Your task to perform on an android device: turn off smart reply in the gmail app Image 0: 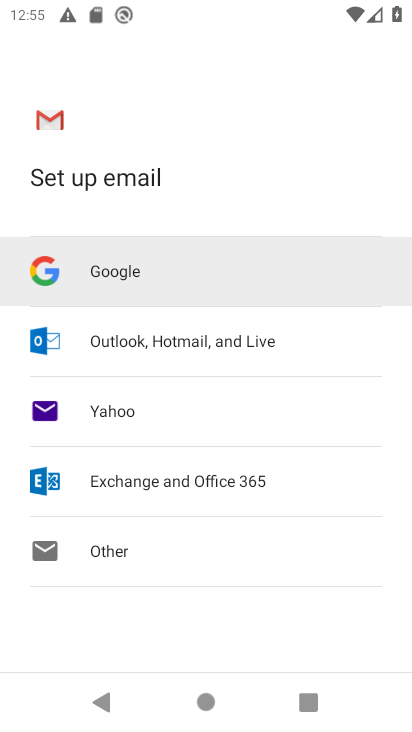
Step 0: press home button
Your task to perform on an android device: turn off smart reply in the gmail app Image 1: 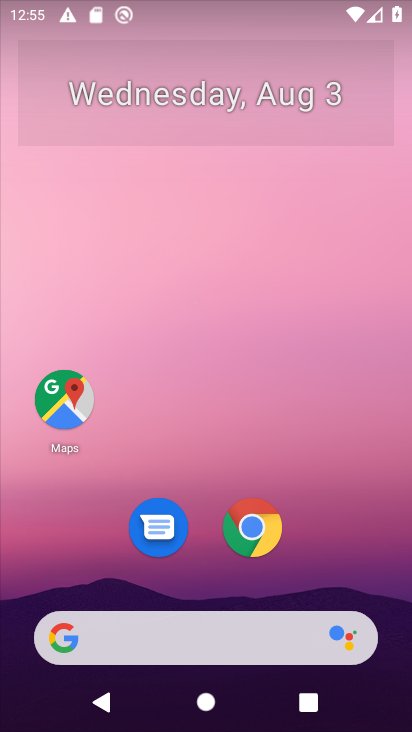
Step 1: drag from (61, 685) to (263, 23)
Your task to perform on an android device: turn off smart reply in the gmail app Image 2: 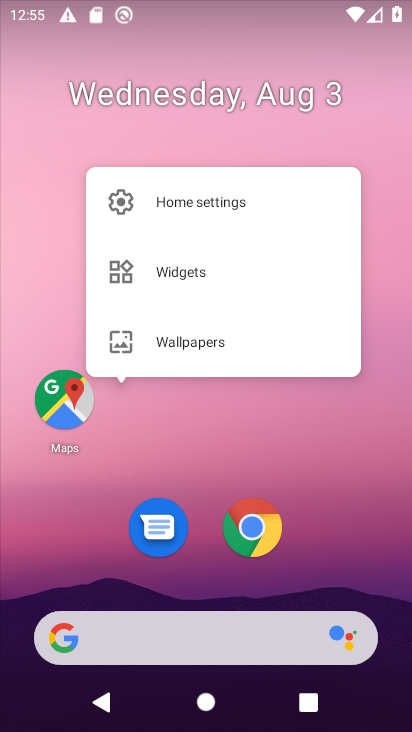
Step 2: drag from (38, 705) to (162, 125)
Your task to perform on an android device: turn off smart reply in the gmail app Image 3: 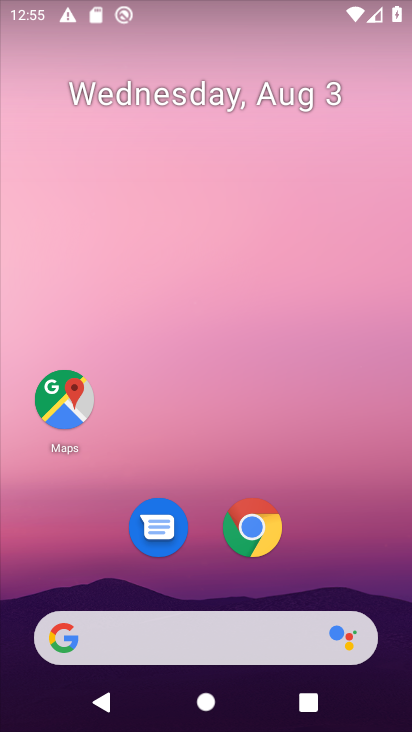
Step 3: drag from (24, 686) to (159, 80)
Your task to perform on an android device: turn off smart reply in the gmail app Image 4: 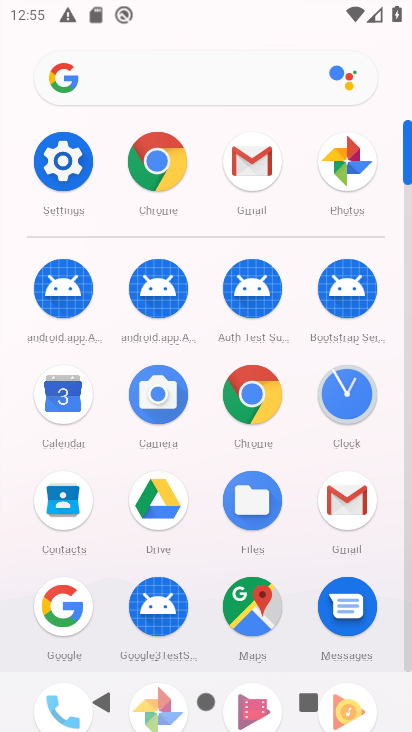
Step 4: click (254, 170)
Your task to perform on an android device: turn off smart reply in the gmail app Image 5: 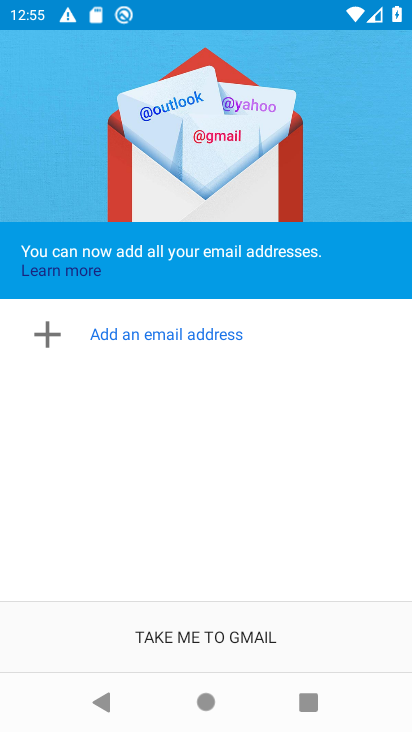
Step 5: click (208, 646)
Your task to perform on an android device: turn off smart reply in the gmail app Image 6: 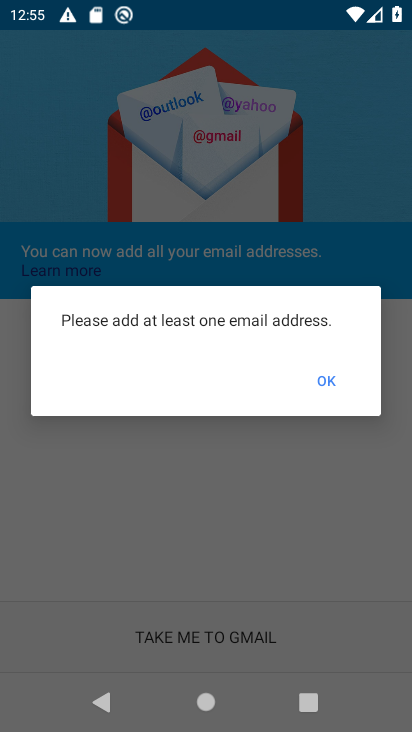
Step 6: click (318, 384)
Your task to perform on an android device: turn off smart reply in the gmail app Image 7: 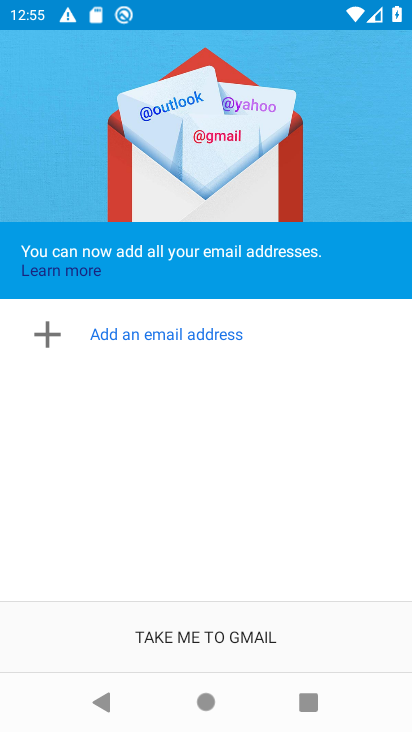
Step 7: task complete